Your task to perform on an android device: set an alarm Image 0: 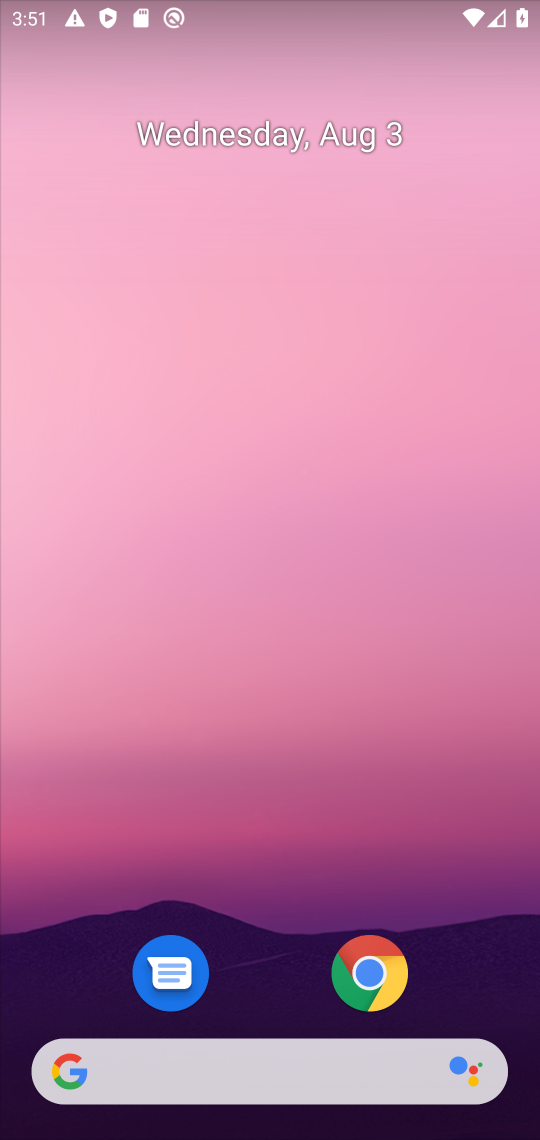
Step 0: drag from (250, 696) to (247, 234)
Your task to perform on an android device: set an alarm Image 1: 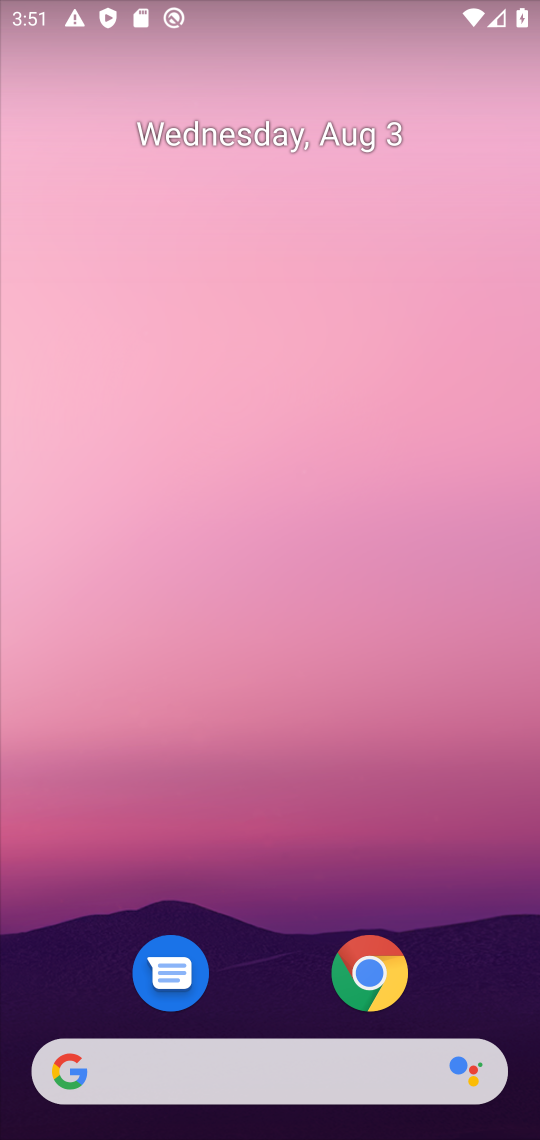
Step 1: drag from (297, 916) to (350, 127)
Your task to perform on an android device: set an alarm Image 2: 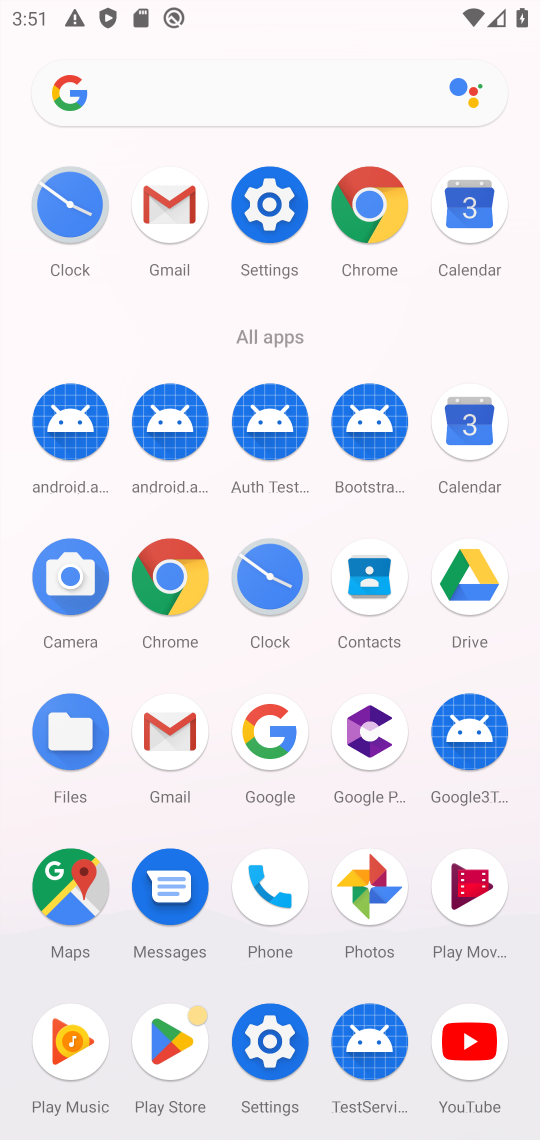
Step 2: click (255, 579)
Your task to perform on an android device: set an alarm Image 3: 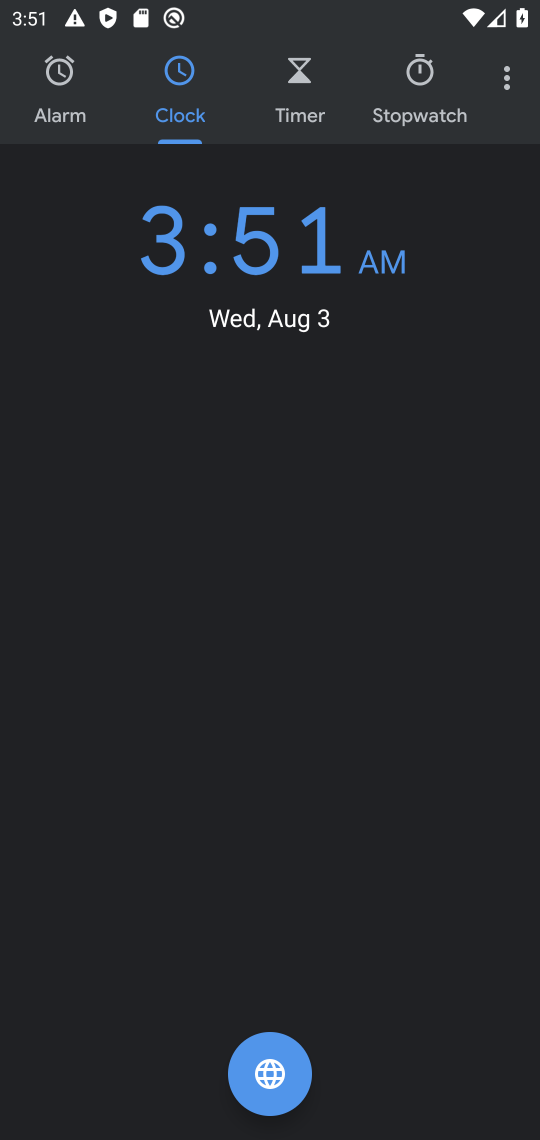
Step 3: click (63, 84)
Your task to perform on an android device: set an alarm Image 4: 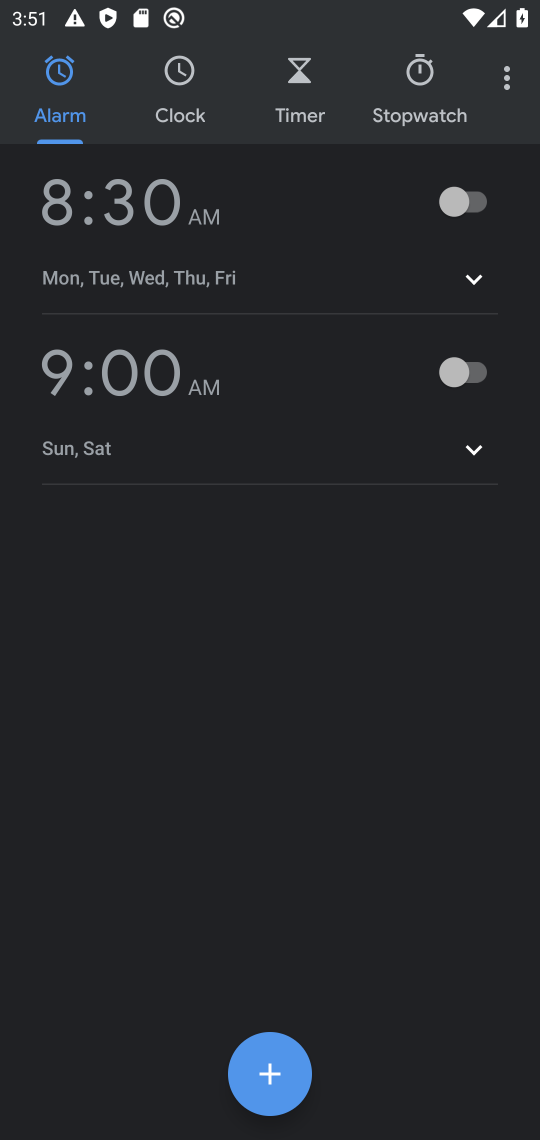
Step 4: click (279, 1067)
Your task to perform on an android device: set an alarm Image 5: 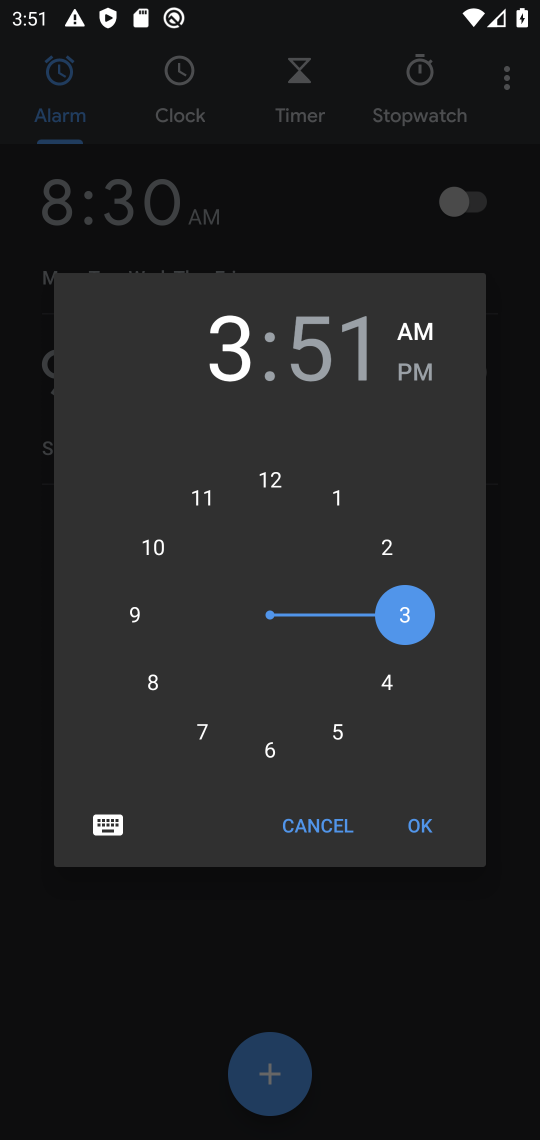
Step 5: click (335, 341)
Your task to perform on an android device: set an alarm Image 6: 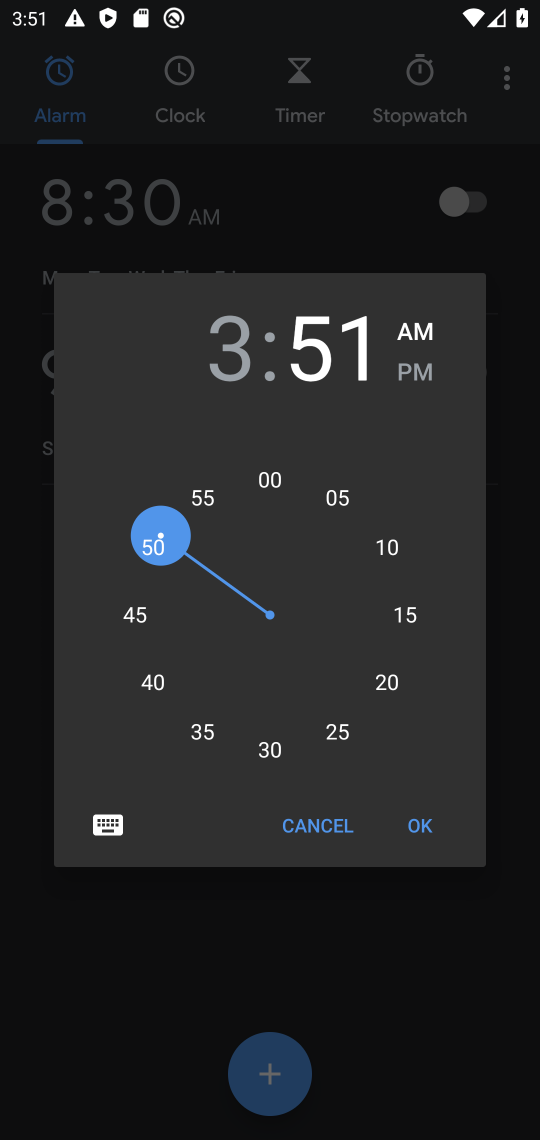
Step 6: click (264, 483)
Your task to perform on an android device: set an alarm Image 7: 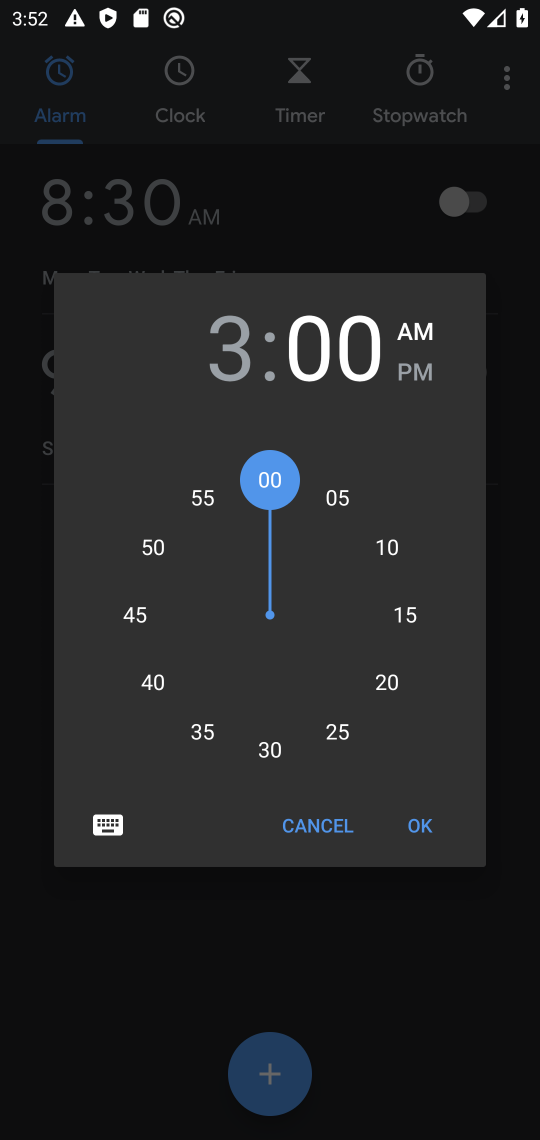
Step 7: click (415, 828)
Your task to perform on an android device: set an alarm Image 8: 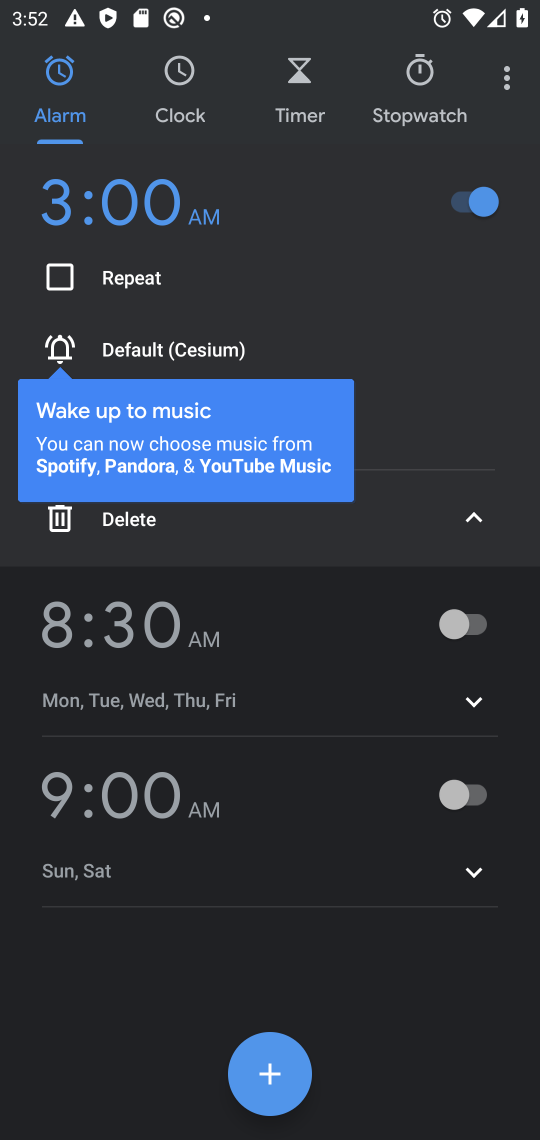
Step 8: task complete